Your task to perform on an android device: open chrome and create a bookmark for the current page Image 0: 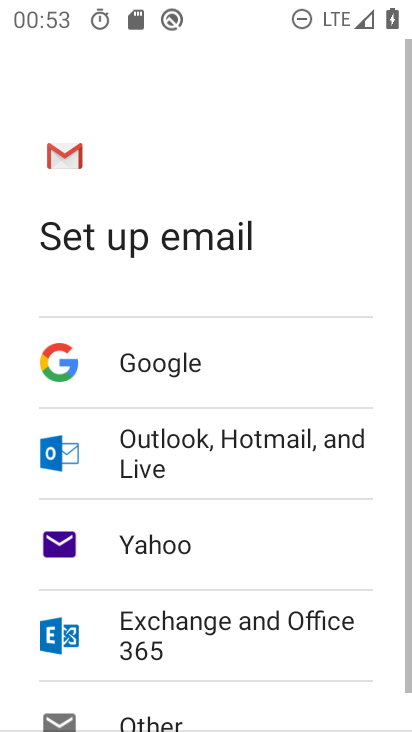
Step 0: press home button
Your task to perform on an android device: open chrome and create a bookmark for the current page Image 1: 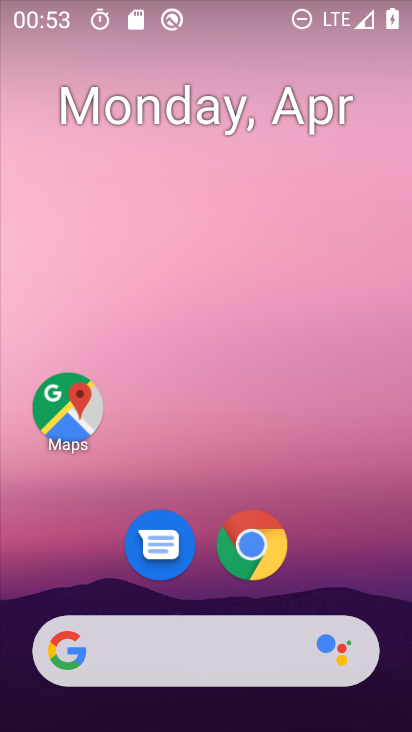
Step 1: drag from (313, 529) to (323, 184)
Your task to perform on an android device: open chrome and create a bookmark for the current page Image 2: 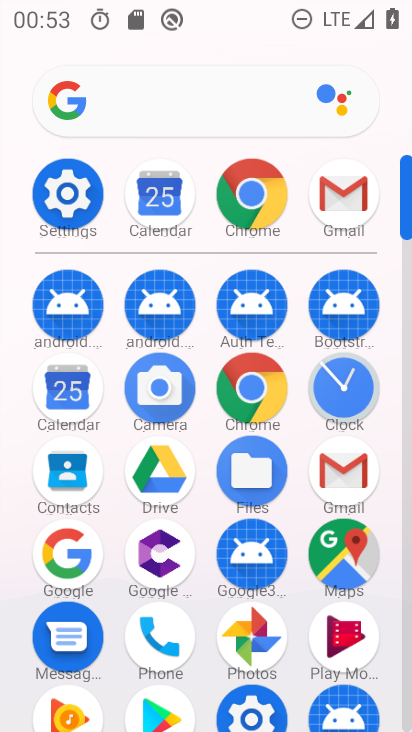
Step 2: click (252, 375)
Your task to perform on an android device: open chrome and create a bookmark for the current page Image 3: 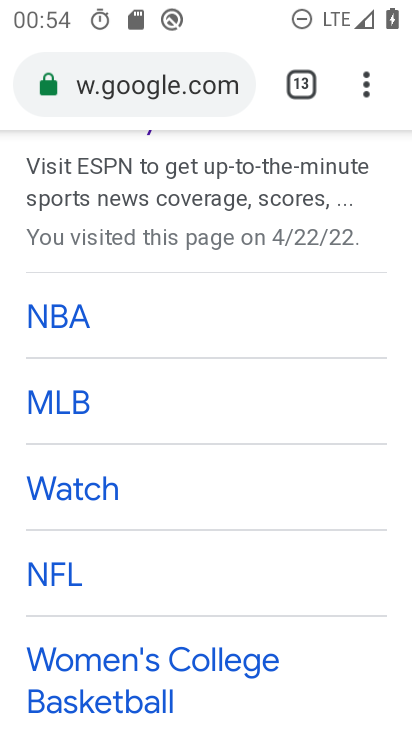
Step 3: click (365, 70)
Your task to perform on an android device: open chrome and create a bookmark for the current page Image 4: 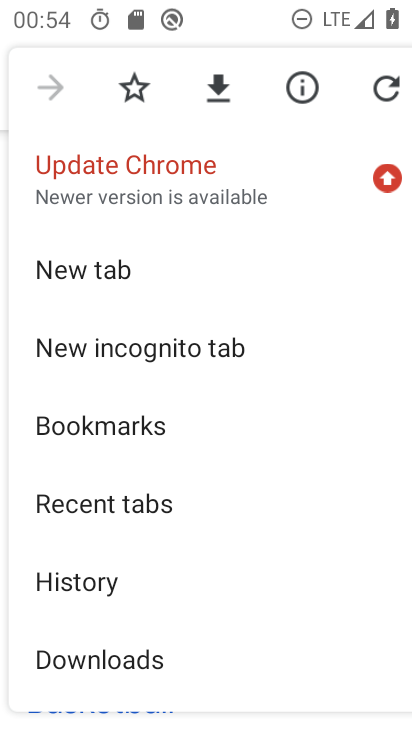
Step 4: click (152, 412)
Your task to perform on an android device: open chrome and create a bookmark for the current page Image 5: 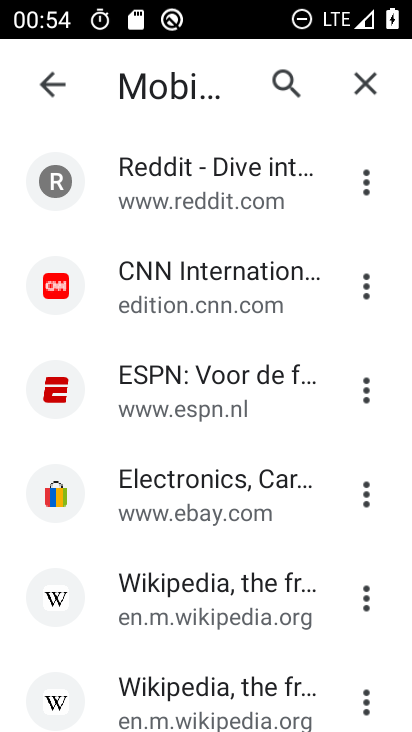
Step 5: click (64, 75)
Your task to perform on an android device: open chrome and create a bookmark for the current page Image 6: 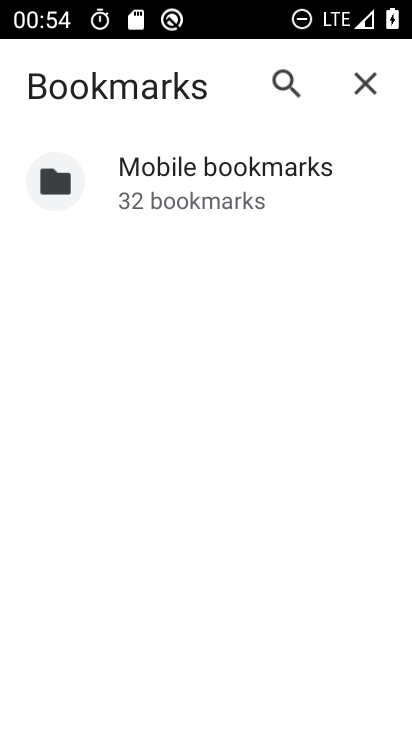
Step 6: click (363, 80)
Your task to perform on an android device: open chrome and create a bookmark for the current page Image 7: 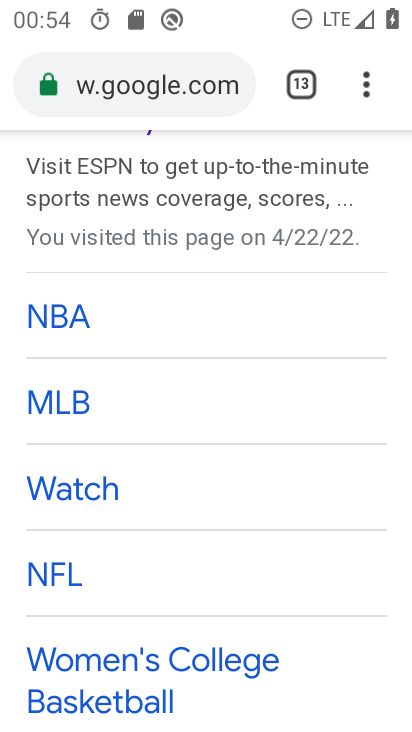
Step 7: click (348, 82)
Your task to perform on an android device: open chrome and create a bookmark for the current page Image 8: 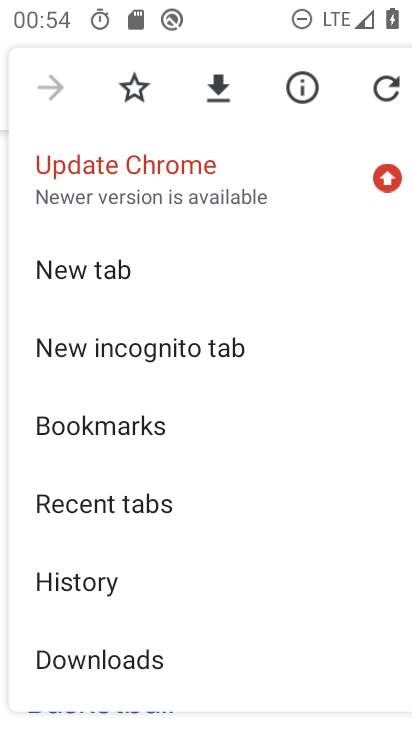
Step 8: click (135, 85)
Your task to perform on an android device: open chrome and create a bookmark for the current page Image 9: 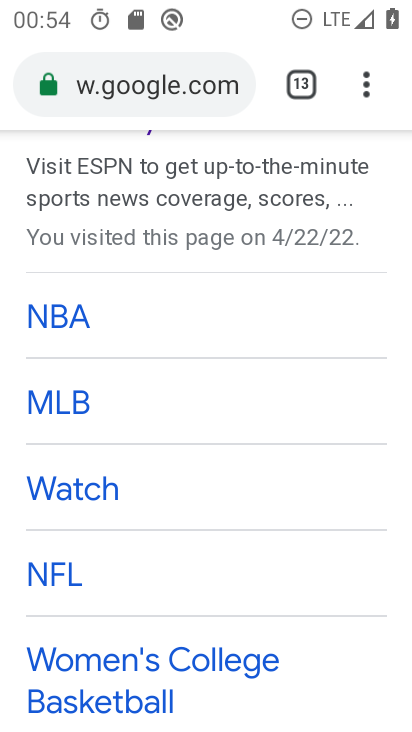
Step 9: click (126, 694)
Your task to perform on an android device: open chrome and create a bookmark for the current page Image 10: 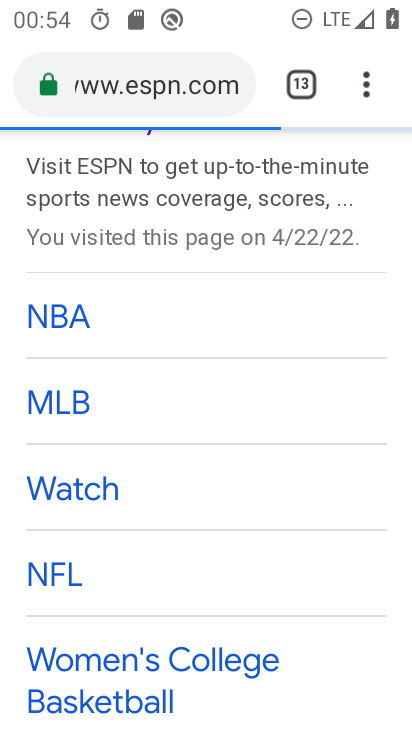
Step 10: task complete